Your task to perform on an android device: turn smart compose on in the gmail app Image 0: 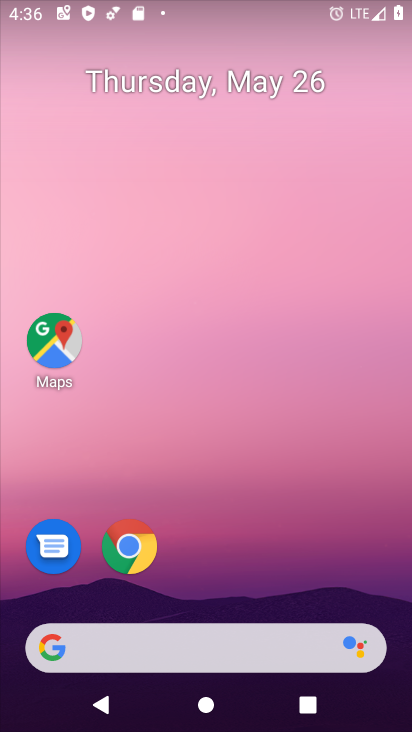
Step 0: drag from (188, 524) to (262, 53)
Your task to perform on an android device: turn smart compose on in the gmail app Image 1: 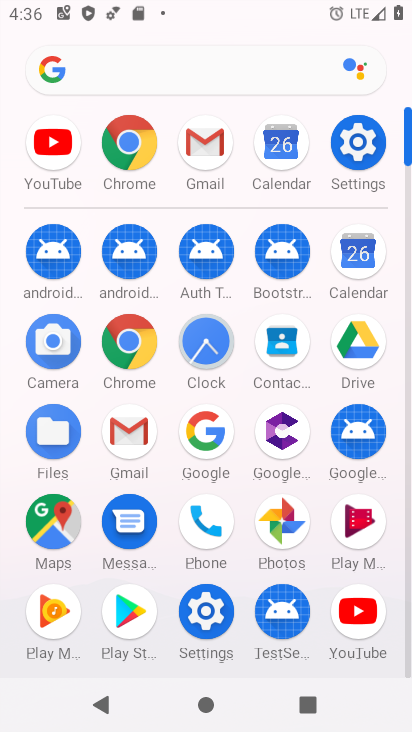
Step 1: click (202, 147)
Your task to perform on an android device: turn smart compose on in the gmail app Image 2: 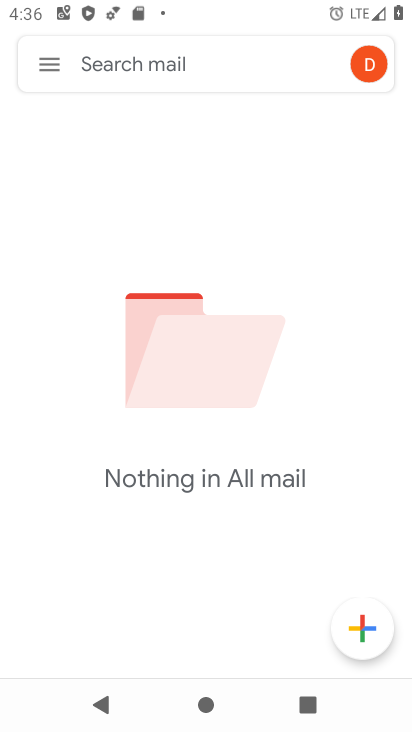
Step 2: click (38, 54)
Your task to perform on an android device: turn smart compose on in the gmail app Image 3: 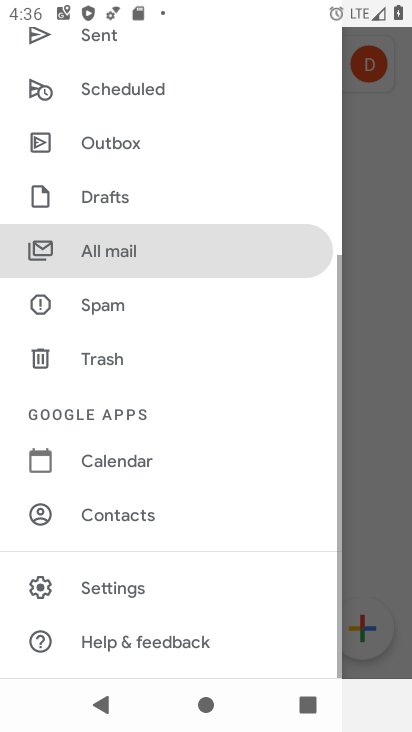
Step 3: click (95, 594)
Your task to perform on an android device: turn smart compose on in the gmail app Image 4: 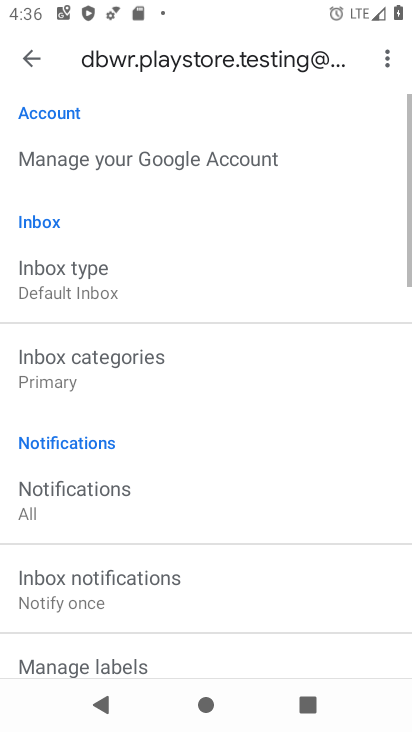
Step 4: task complete